Your task to perform on an android device: check storage Image 0: 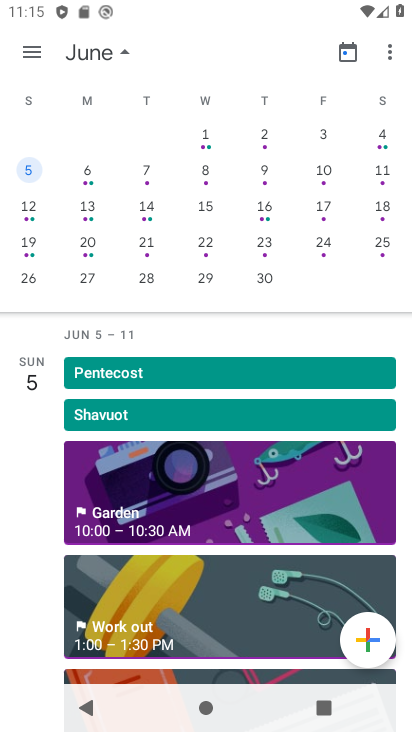
Step 0: press home button
Your task to perform on an android device: check storage Image 1: 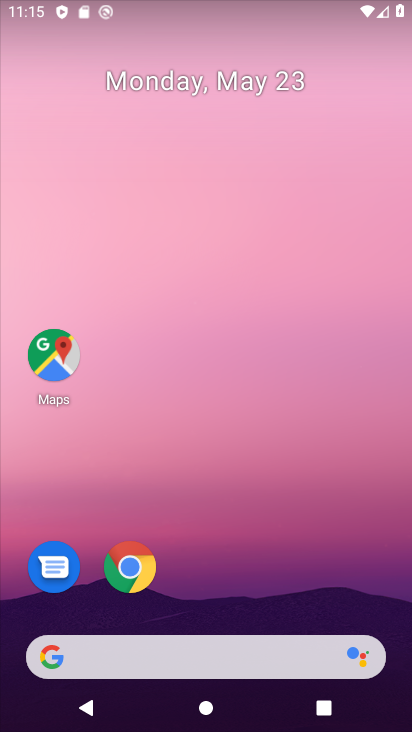
Step 1: drag from (269, 611) to (295, 136)
Your task to perform on an android device: check storage Image 2: 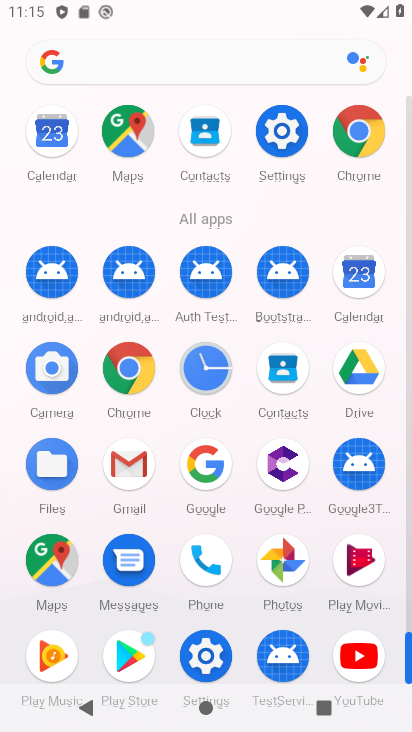
Step 2: click (286, 127)
Your task to perform on an android device: check storage Image 3: 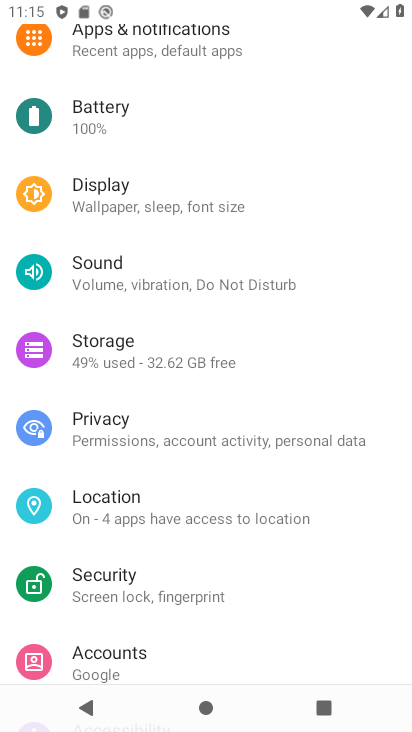
Step 3: click (123, 353)
Your task to perform on an android device: check storage Image 4: 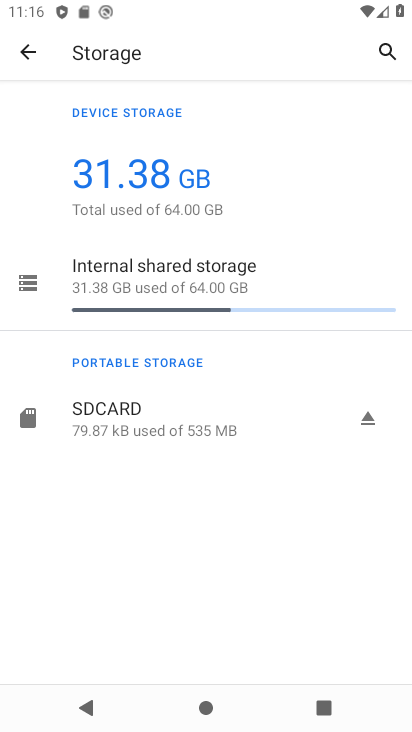
Step 4: click (31, 283)
Your task to perform on an android device: check storage Image 5: 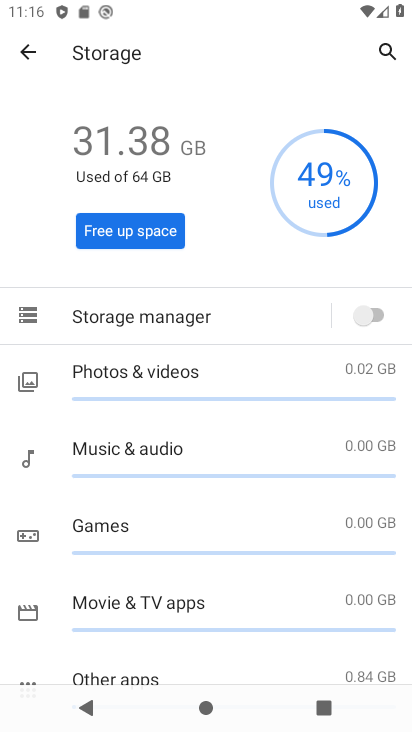
Step 5: task complete